Your task to perform on an android device: Search for the best rated coffee table on Target. Image 0: 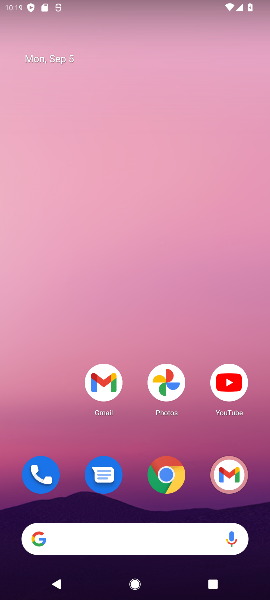
Step 0: click (167, 385)
Your task to perform on an android device: Search for the best rated coffee table on Target. Image 1: 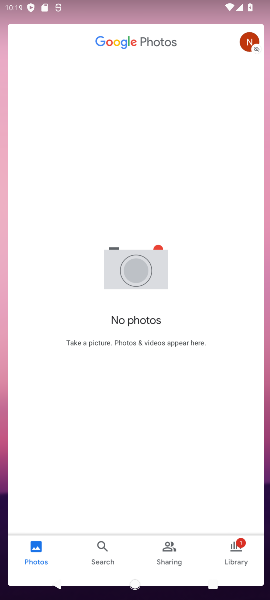
Step 1: task complete